Your task to perform on an android device: Open privacy settings Image 0: 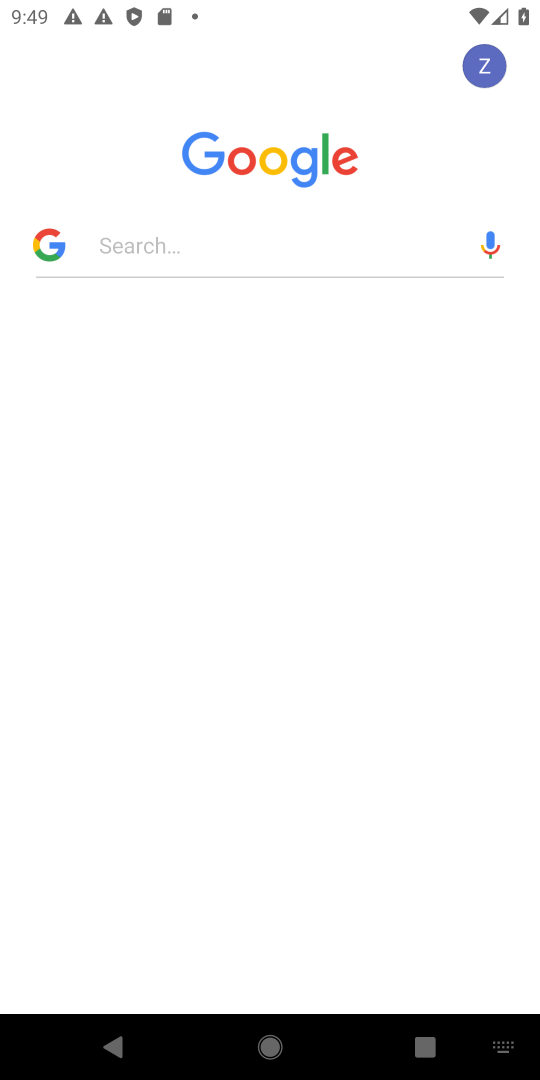
Step 0: press home button
Your task to perform on an android device: Open privacy settings Image 1: 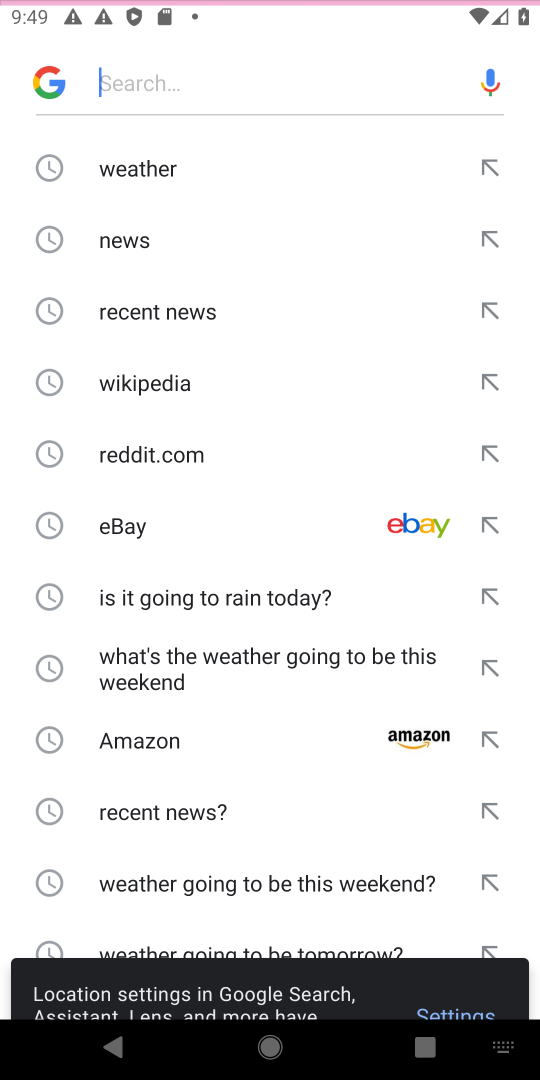
Step 1: drag from (258, 939) to (355, 368)
Your task to perform on an android device: Open privacy settings Image 2: 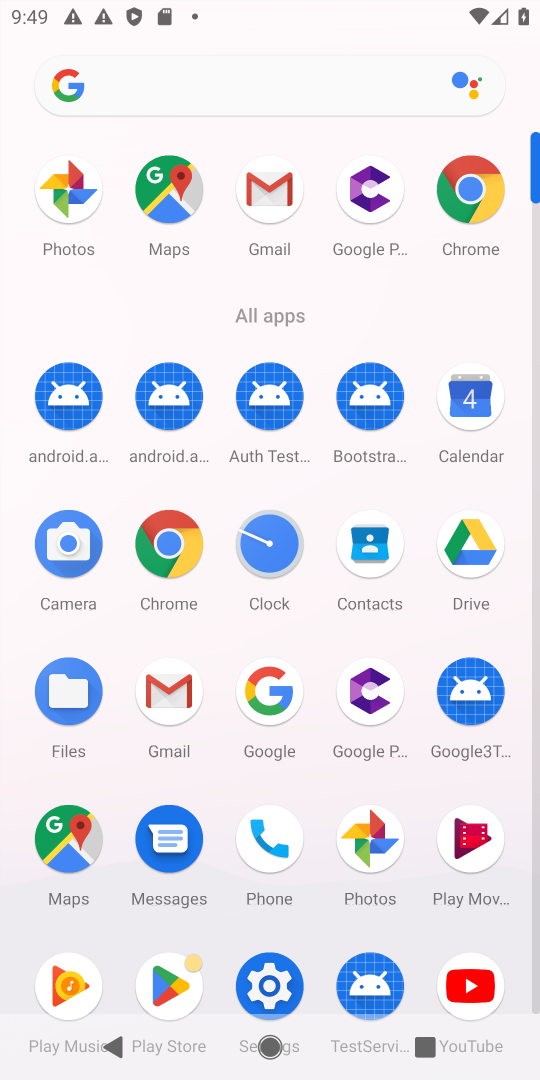
Step 2: click (249, 969)
Your task to perform on an android device: Open privacy settings Image 3: 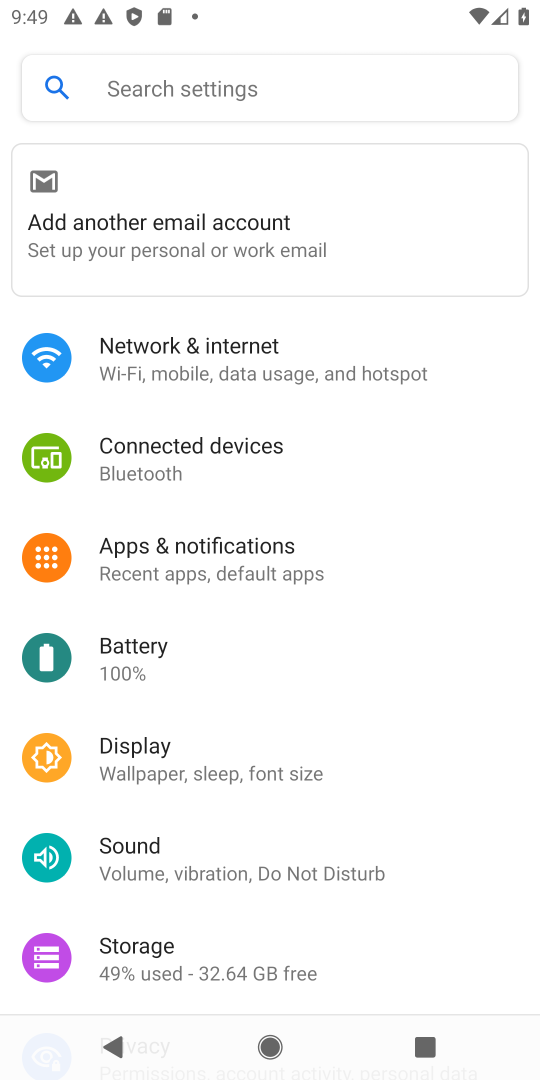
Step 3: drag from (166, 946) to (299, 494)
Your task to perform on an android device: Open privacy settings Image 4: 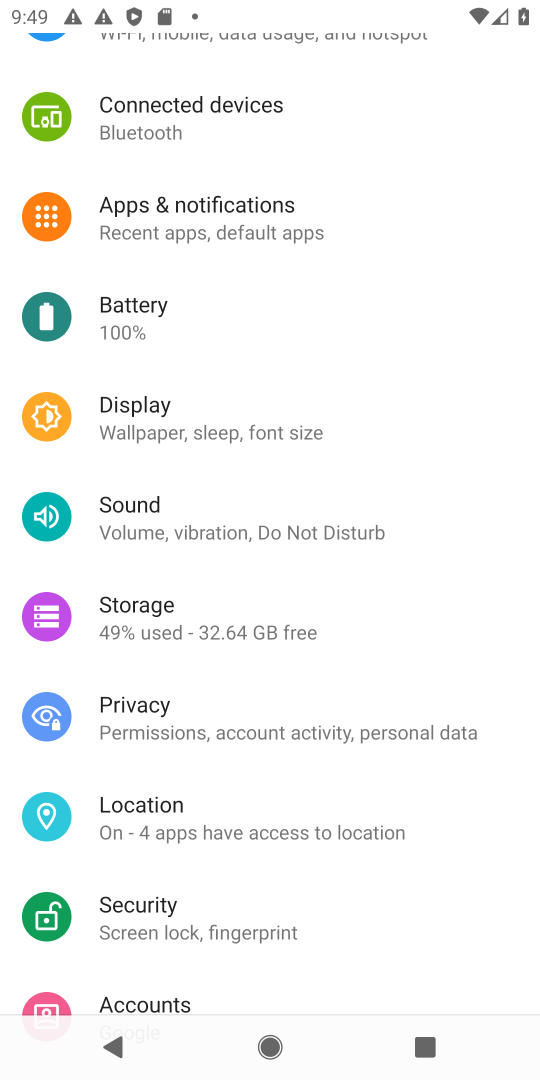
Step 4: click (224, 728)
Your task to perform on an android device: Open privacy settings Image 5: 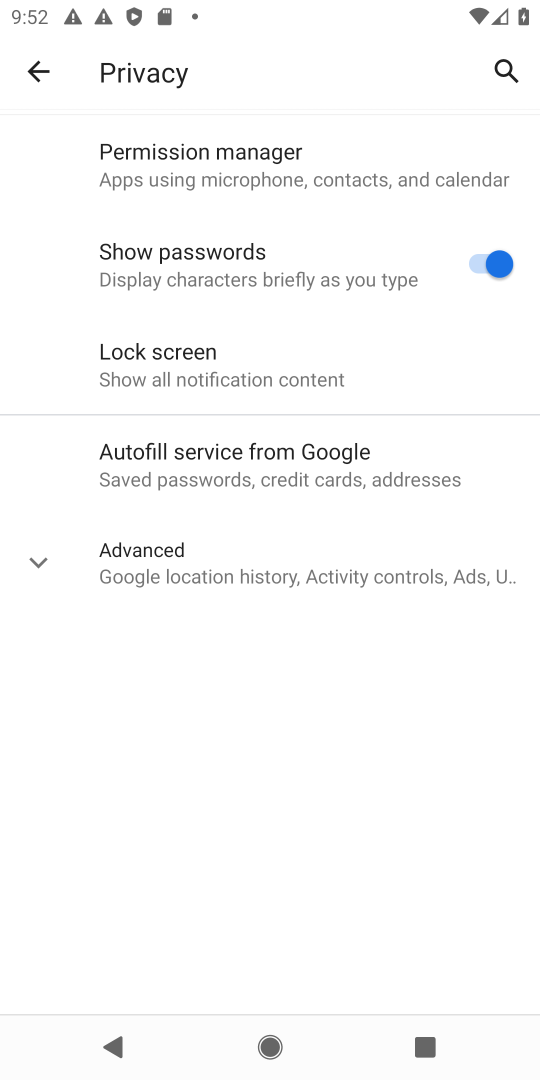
Step 5: task complete